Your task to perform on an android device: What's the weather going to be tomorrow? Image 0: 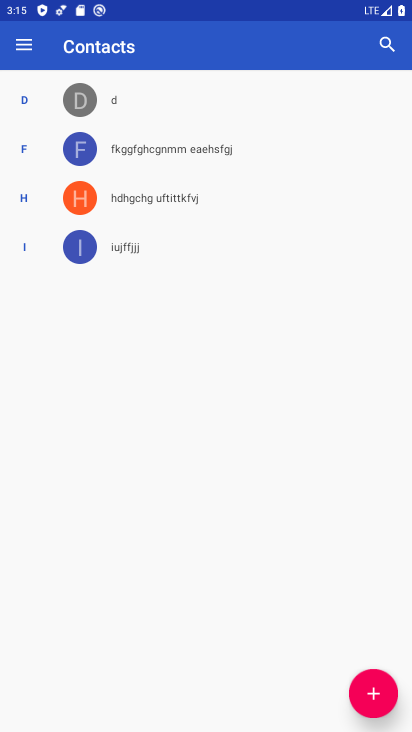
Step 0: press home button
Your task to perform on an android device: What's the weather going to be tomorrow? Image 1: 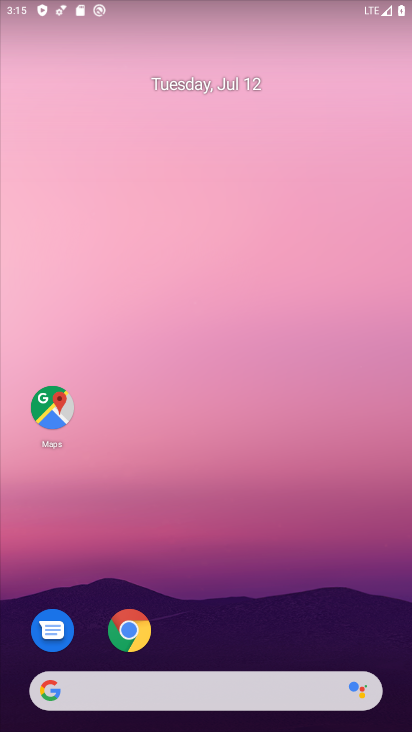
Step 1: click (198, 693)
Your task to perform on an android device: What's the weather going to be tomorrow? Image 2: 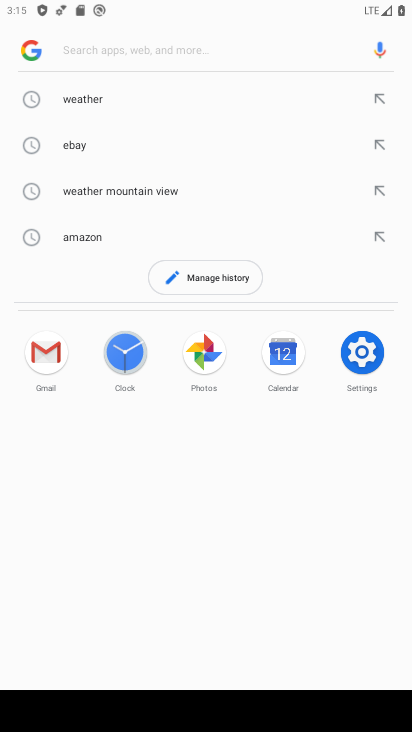
Step 2: click (106, 99)
Your task to perform on an android device: What's the weather going to be tomorrow? Image 3: 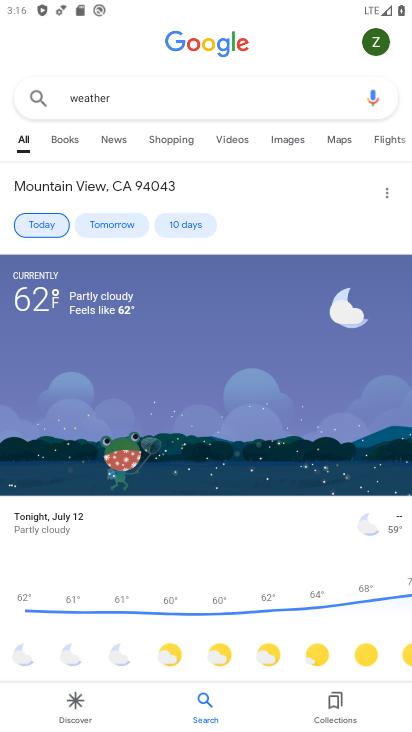
Step 3: click (106, 226)
Your task to perform on an android device: What's the weather going to be tomorrow? Image 4: 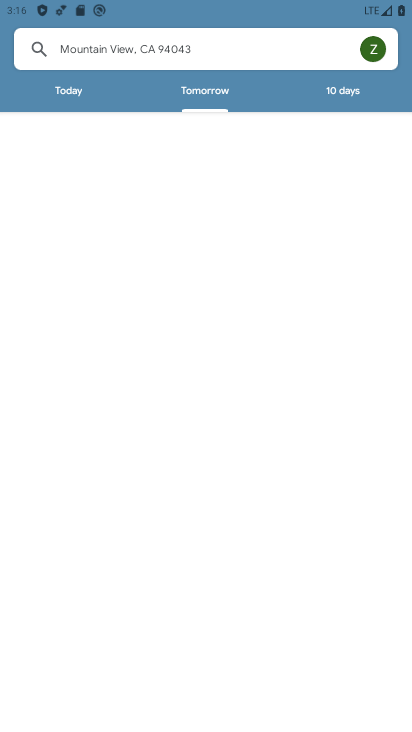
Step 4: task complete